Your task to perform on an android device: Open settings Image 0: 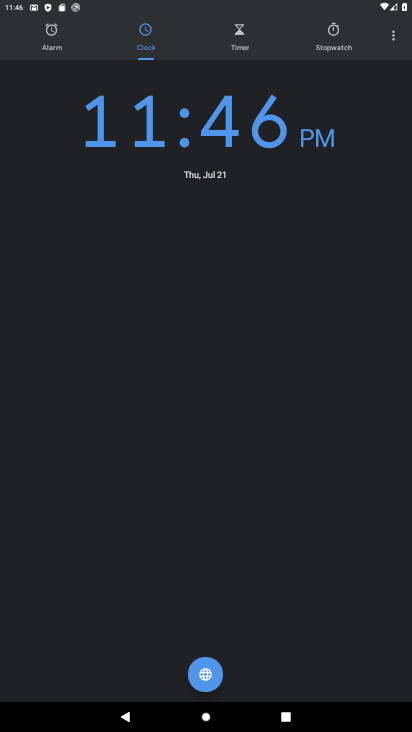
Step 0: press home button
Your task to perform on an android device: Open settings Image 1: 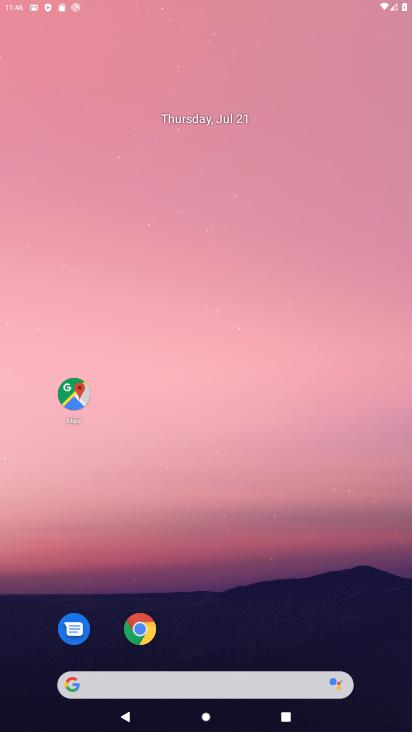
Step 1: drag from (176, 669) to (249, 115)
Your task to perform on an android device: Open settings Image 2: 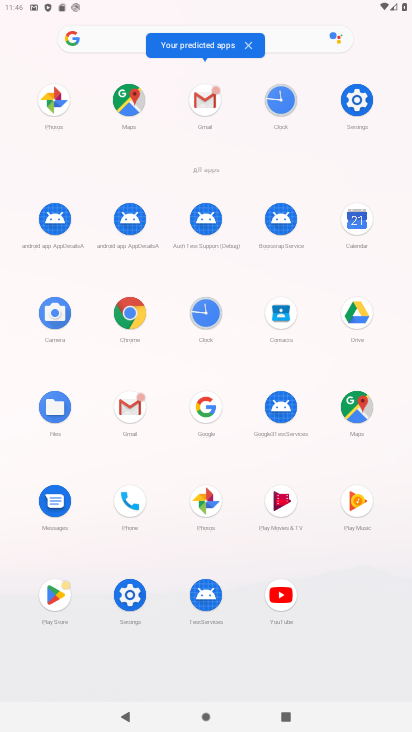
Step 2: click (373, 98)
Your task to perform on an android device: Open settings Image 3: 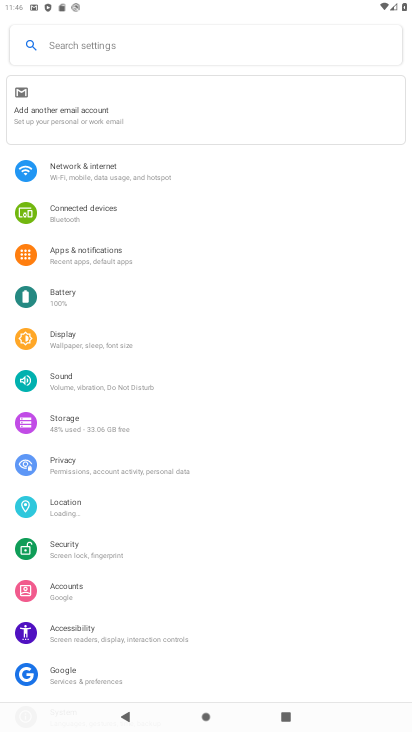
Step 3: task complete